Your task to perform on an android device: change text size in settings app Image 0: 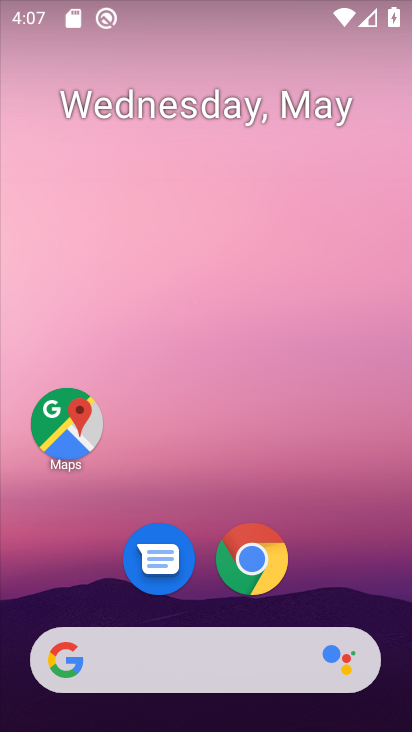
Step 0: drag from (335, 498) to (210, 61)
Your task to perform on an android device: change text size in settings app Image 1: 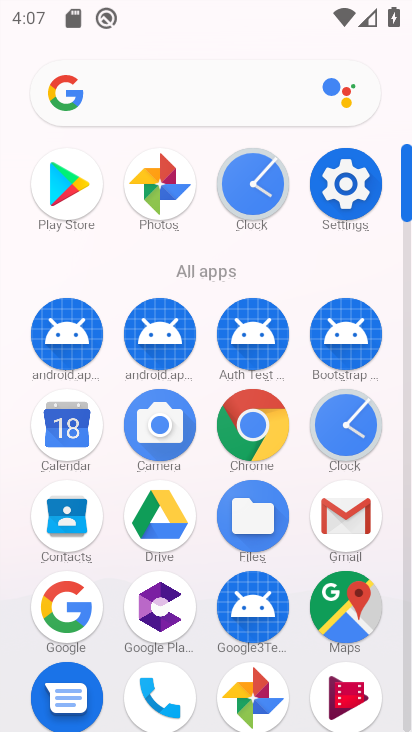
Step 1: click (356, 188)
Your task to perform on an android device: change text size in settings app Image 2: 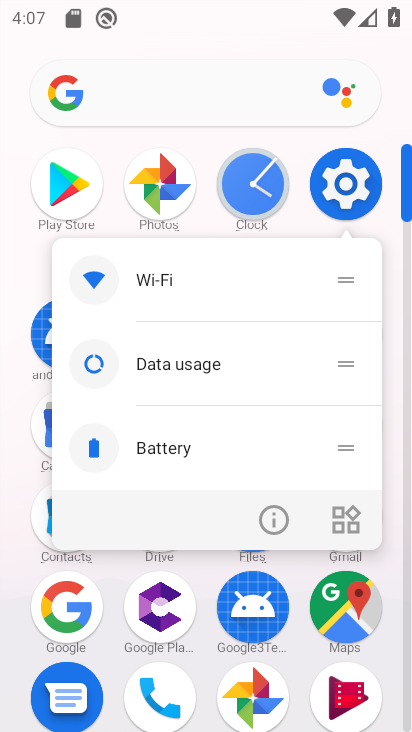
Step 2: click (325, 185)
Your task to perform on an android device: change text size in settings app Image 3: 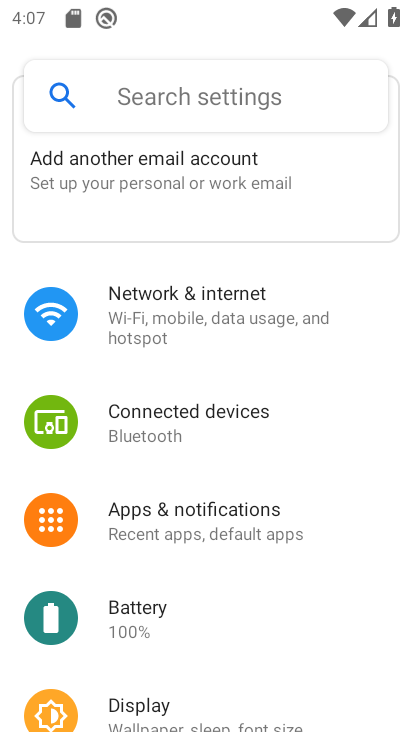
Step 3: click (203, 696)
Your task to perform on an android device: change text size in settings app Image 4: 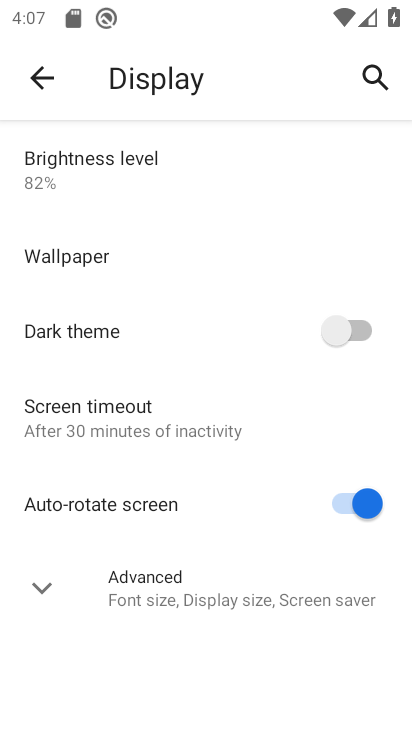
Step 4: click (179, 576)
Your task to perform on an android device: change text size in settings app Image 5: 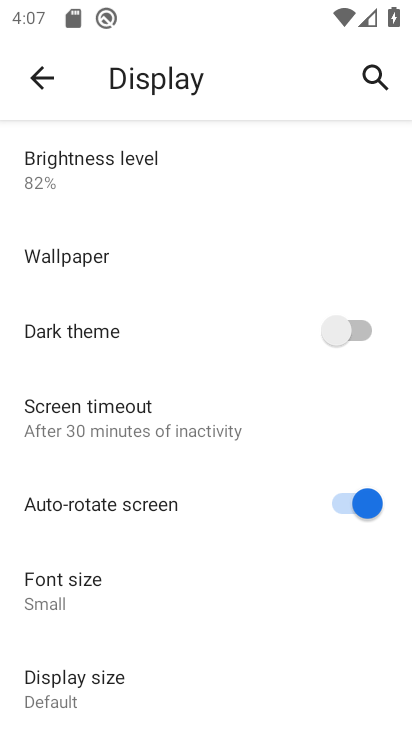
Step 5: click (121, 591)
Your task to perform on an android device: change text size in settings app Image 6: 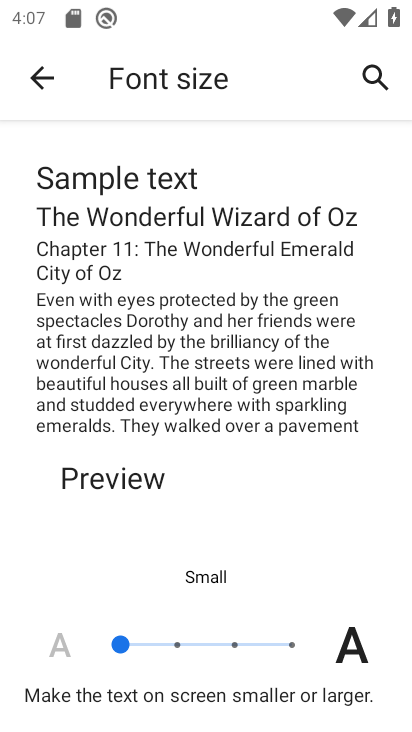
Step 6: click (181, 648)
Your task to perform on an android device: change text size in settings app Image 7: 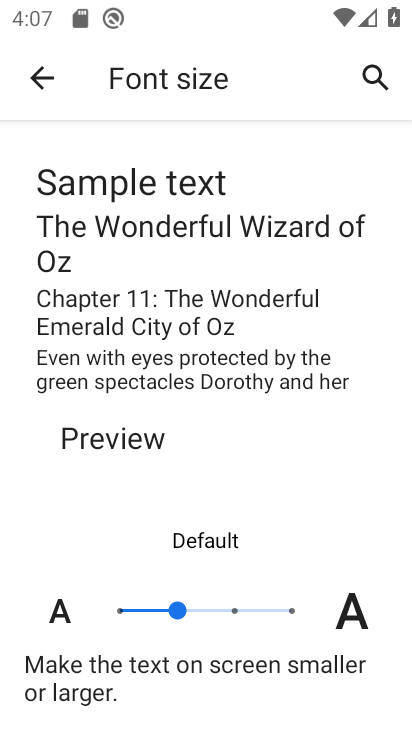
Step 7: task complete